Your task to perform on an android device: delete a single message in the gmail app Image 0: 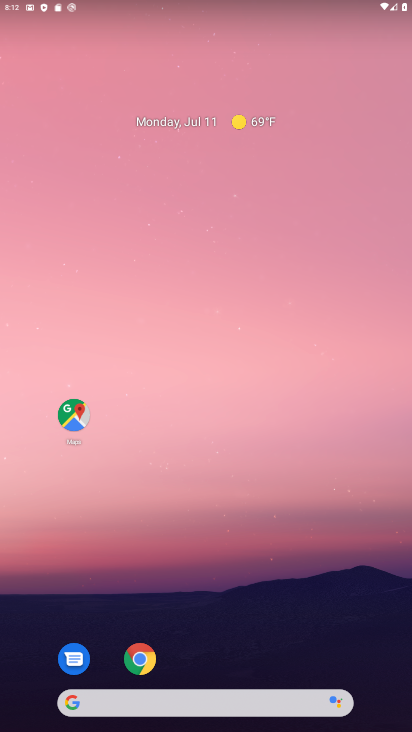
Step 0: drag from (227, 654) to (332, 89)
Your task to perform on an android device: delete a single message in the gmail app Image 1: 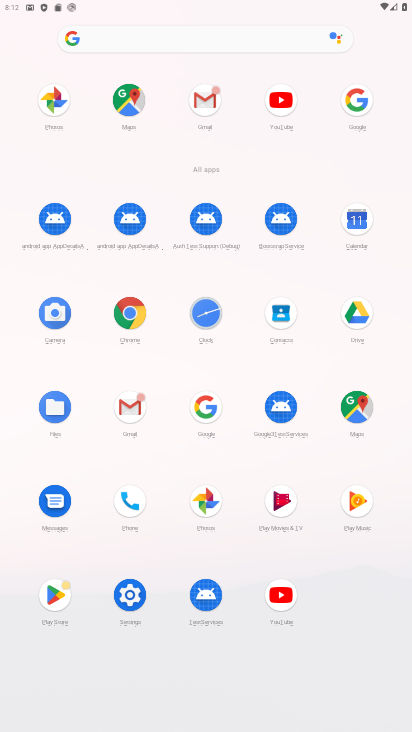
Step 1: click (124, 408)
Your task to perform on an android device: delete a single message in the gmail app Image 2: 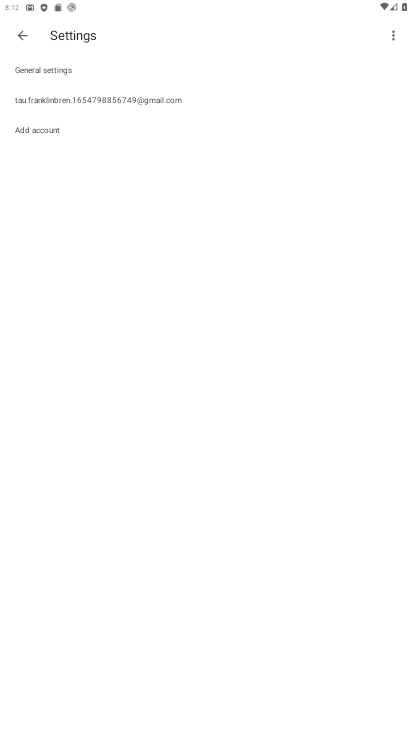
Step 2: press back button
Your task to perform on an android device: delete a single message in the gmail app Image 3: 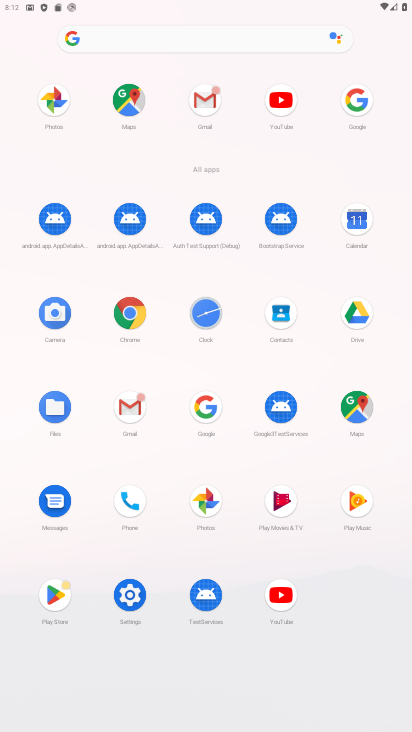
Step 3: click (138, 402)
Your task to perform on an android device: delete a single message in the gmail app Image 4: 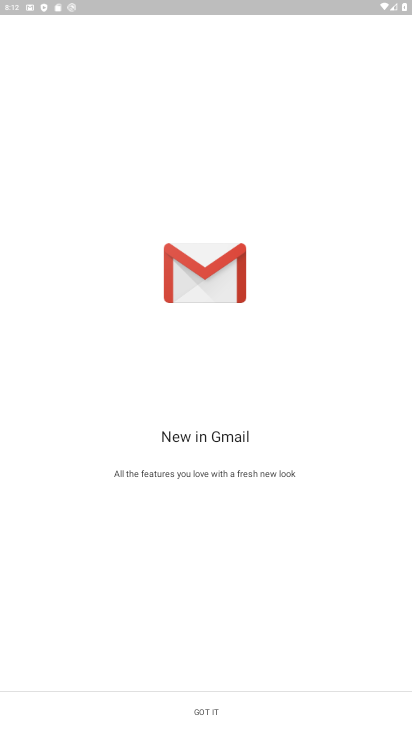
Step 4: click (218, 703)
Your task to perform on an android device: delete a single message in the gmail app Image 5: 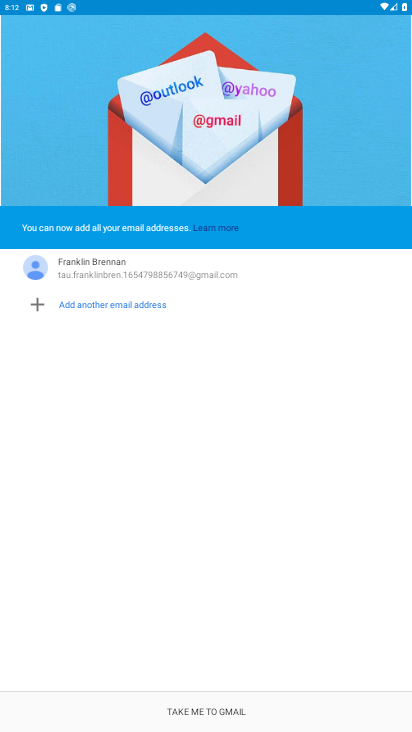
Step 5: click (227, 710)
Your task to perform on an android device: delete a single message in the gmail app Image 6: 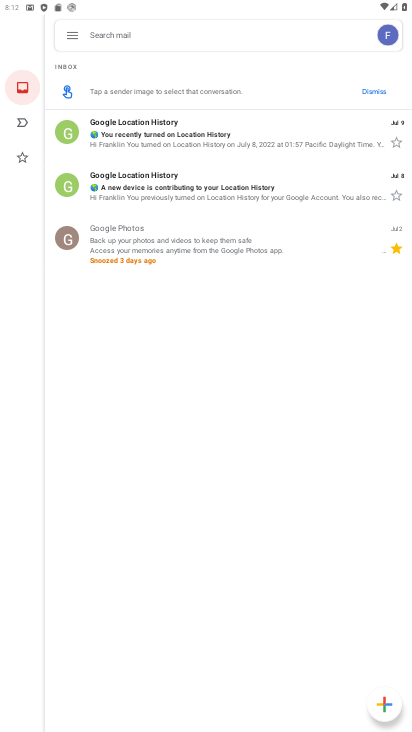
Step 6: click (232, 149)
Your task to perform on an android device: delete a single message in the gmail app Image 7: 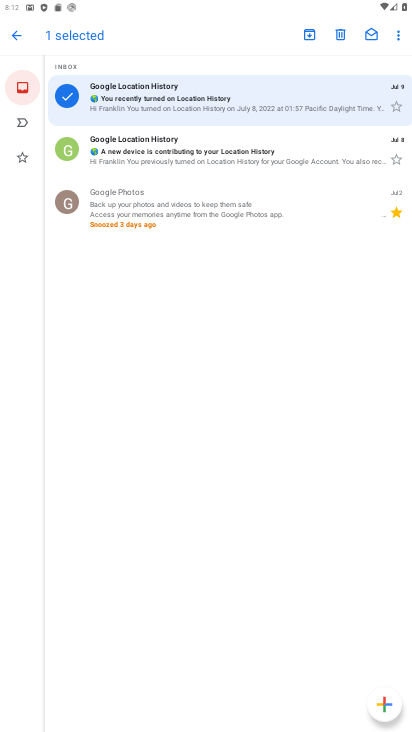
Step 7: click (341, 34)
Your task to perform on an android device: delete a single message in the gmail app Image 8: 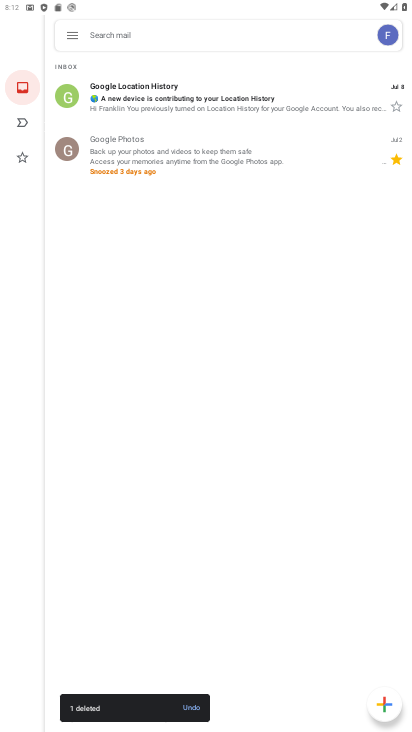
Step 8: task complete